Your task to perform on an android device: Open accessibility settings Image 0: 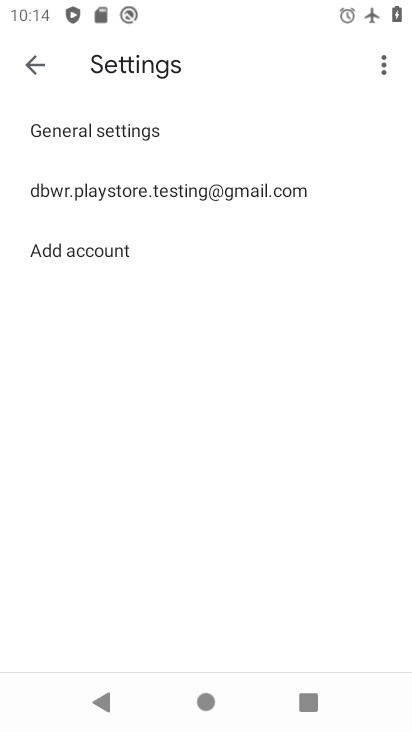
Step 0: drag from (254, 597) to (310, 154)
Your task to perform on an android device: Open accessibility settings Image 1: 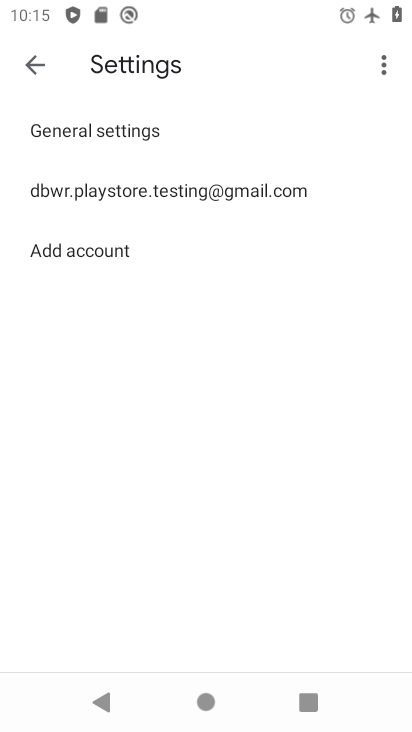
Step 1: press home button
Your task to perform on an android device: Open accessibility settings Image 2: 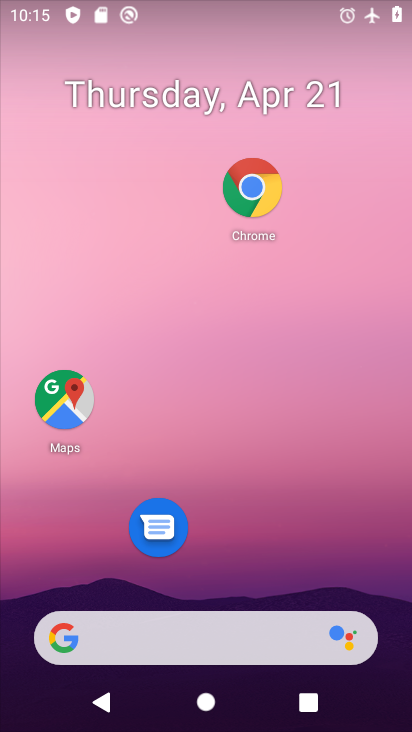
Step 2: drag from (270, 536) to (311, 178)
Your task to perform on an android device: Open accessibility settings Image 3: 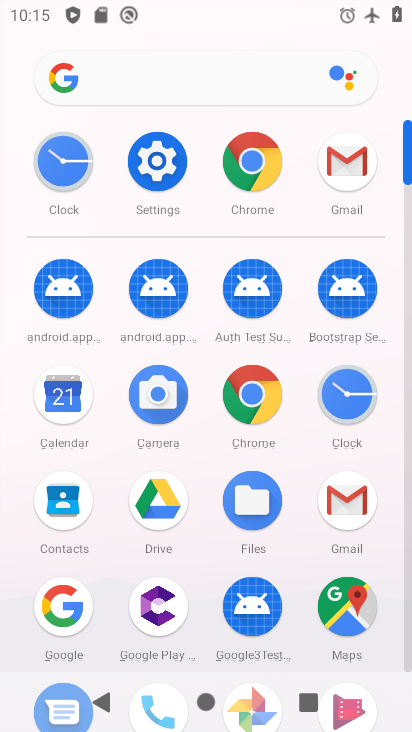
Step 3: click (174, 166)
Your task to perform on an android device: Open accessibility settings Image 4: 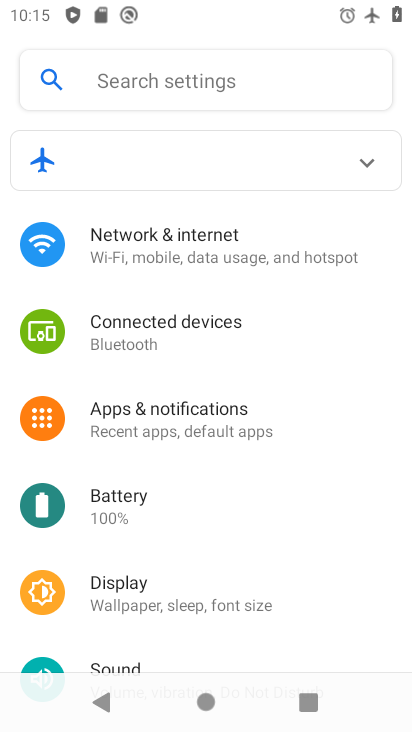
Step 4: drag from (211, 491) to (249, 294)
Your task to perform on an android device: Open accessibility settings Image 5: 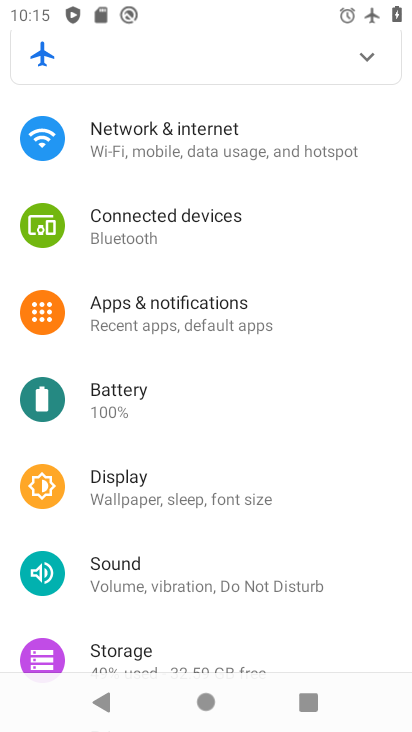
Step 5: drag from (214, 560) to (279, 166)
Your task to perform on an android device: Open accessibility settings Image 6: 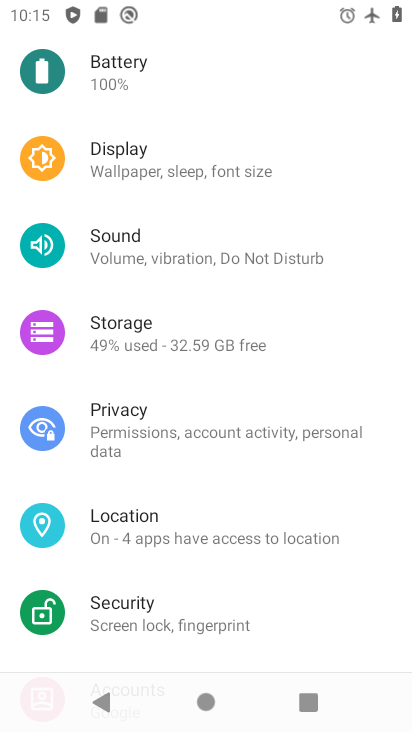
Step 6: drag from (227, 500) to (256, 156)
Your task to perform on an android device: Open accessibility settings Image 7: 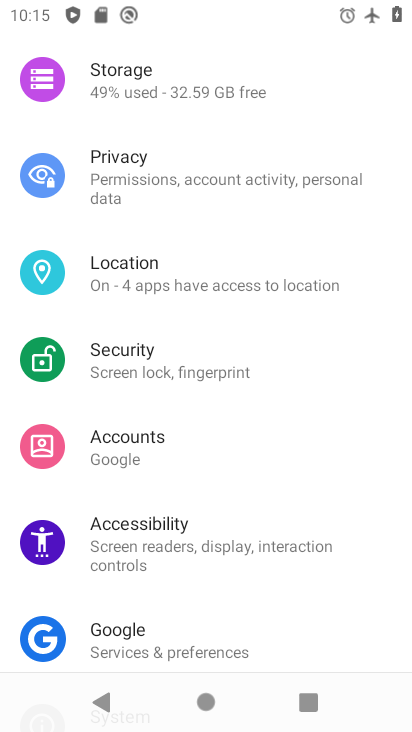
Step 7: click (230, 544)
Your task to perform on an android device: Open accessibility settings Image 8: 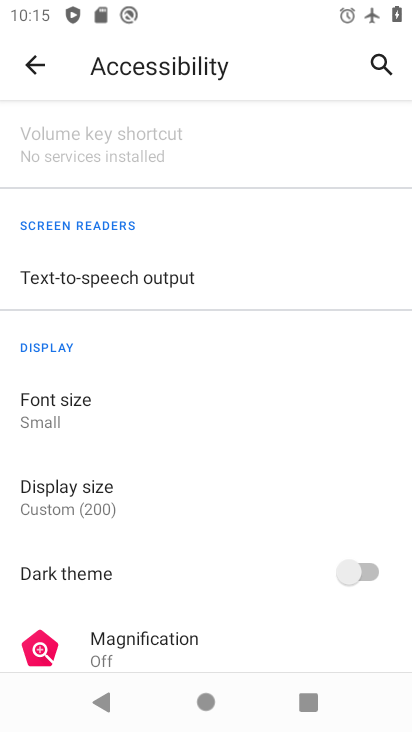
Step 8: task complete